Your task to perform on an android device: What's the weather going to be this weekend? Image 0: 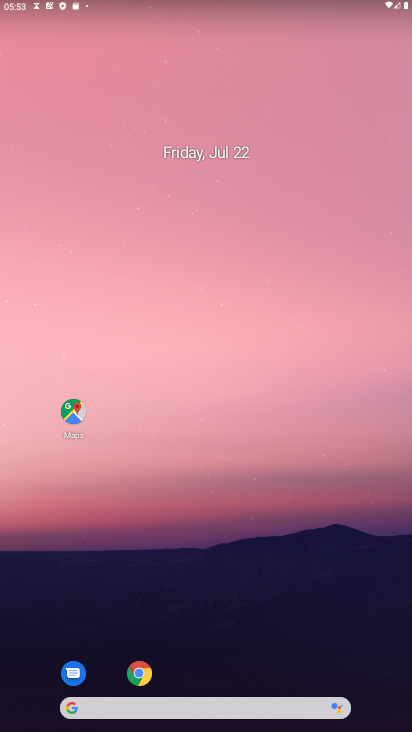
Step 0: drag from (192, 684) to (285, 182)
Your task to perform on an android device: What's the weather going to be this weekend? Image 1: 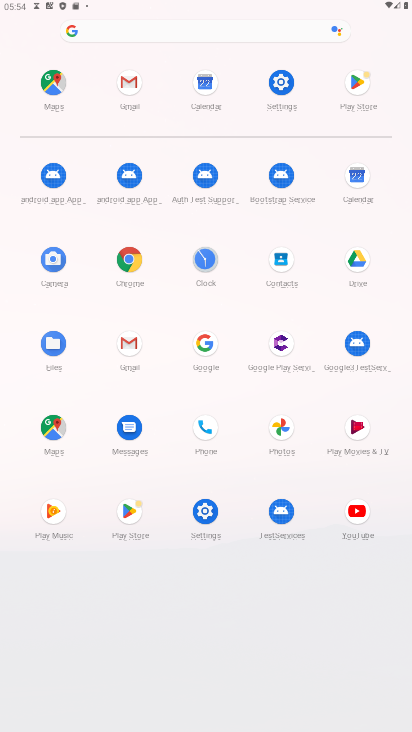
Step 1: click (209, 344)
Your task to perform on an android device: What's the weather going to be this weekend? Image 2: 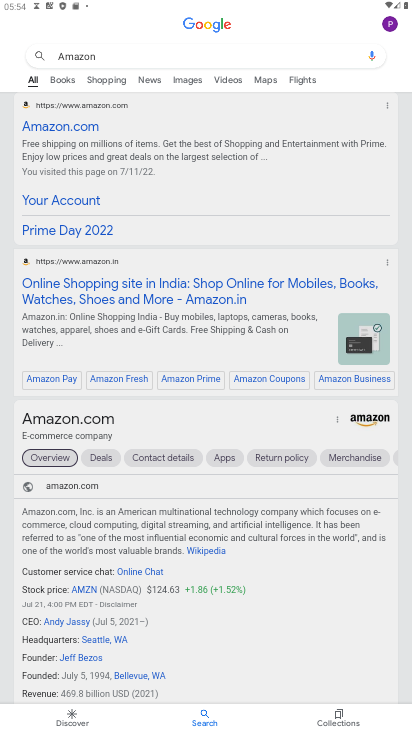
Step 2: click (105, 57)
Your task to perform on an android device: What's the weather going to be this weekend? Image 3: 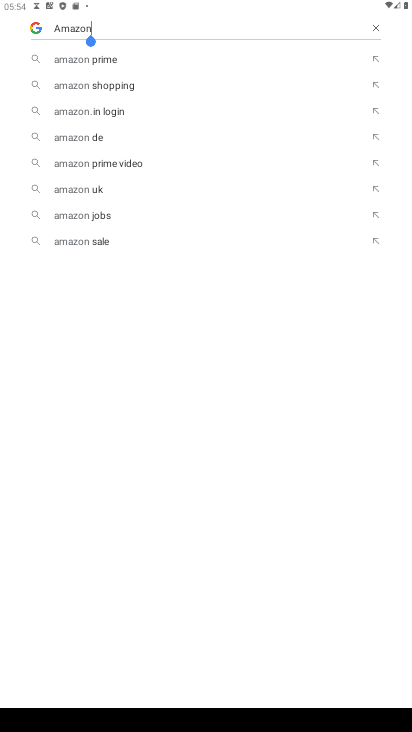
Step 3: click (379, 28)
Your task to perform on an android device: What's the weather going to be this weekend? Image 4: 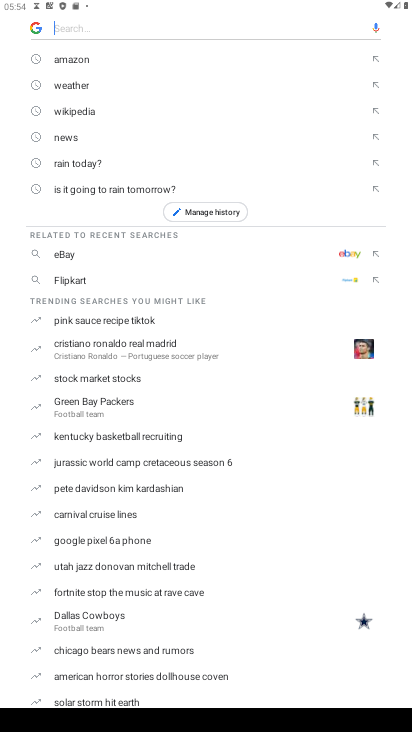
Step 4: type "weather going to be this weekend?"
Your task to perform on an android device: What's the weather going to be this weekend? Image 5: 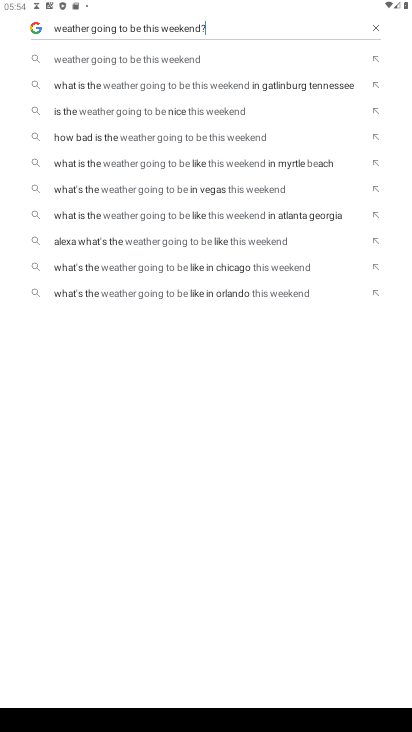
Step 5: press enter
Your task to perform on an android device: What's the weather going to be this weekend? Image 6: 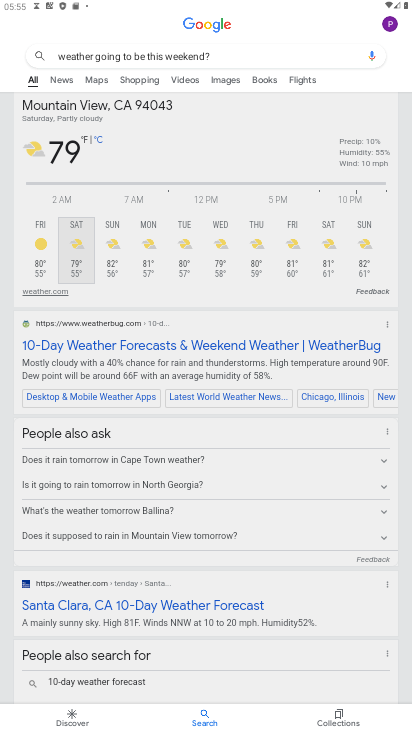
Step 6: task complete